Your task to perform on an android device: Open calendar and show me the second week of next month Image 0: 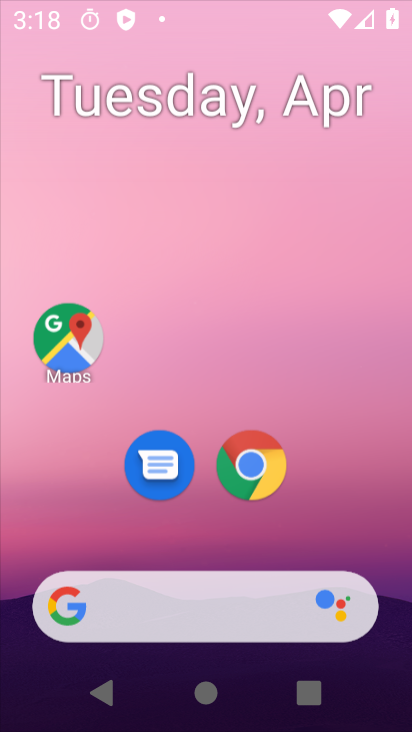
Step 0: drag from (215, 546) to (175, 3)
Your task to perform on an android device: Open calendar and show me the second week of next month Image 1: 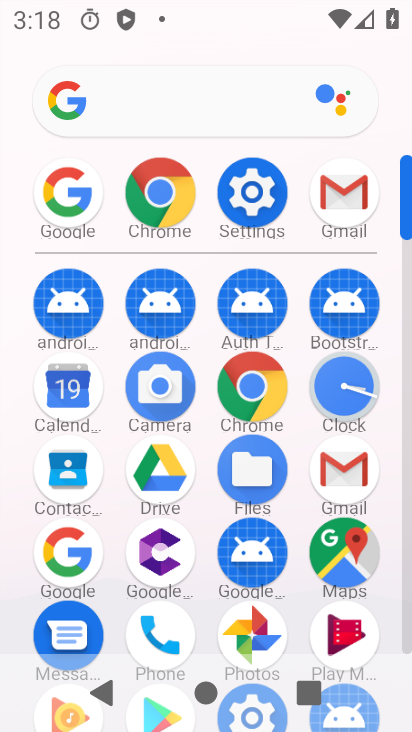
Step 1: click (71, 372)
Your task to perform on an android device: Open calendar and show me the second week of next month Image 2: 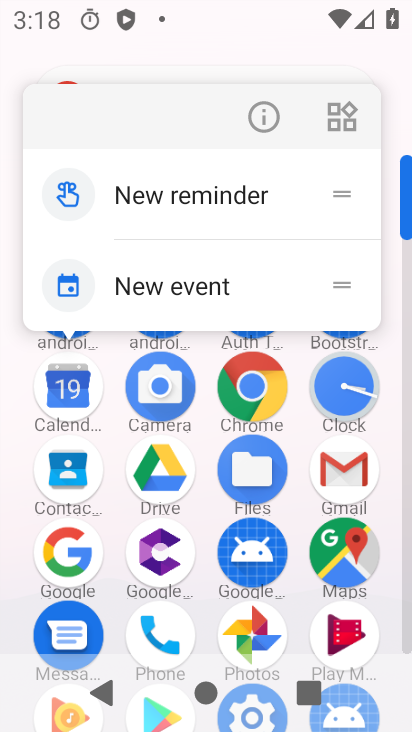
Step 2: click (68, 409)
Your task to perform on an android device: Open calendar and show me the second week of next month Image 3: 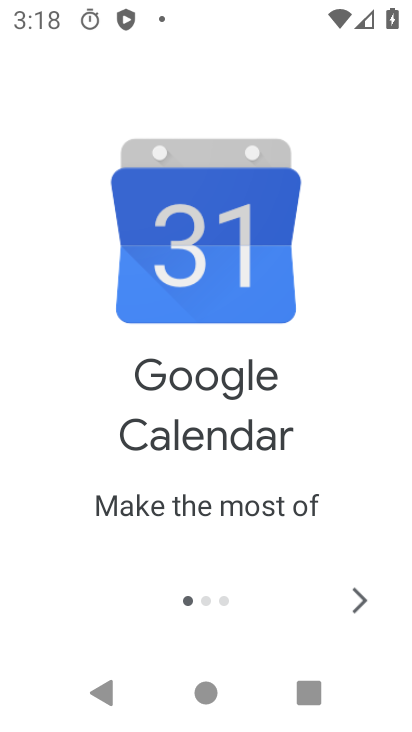
Step 3: click (351, 593)
Your task to perform on an android device: Open calendar and show me the second week of next month Image 4: 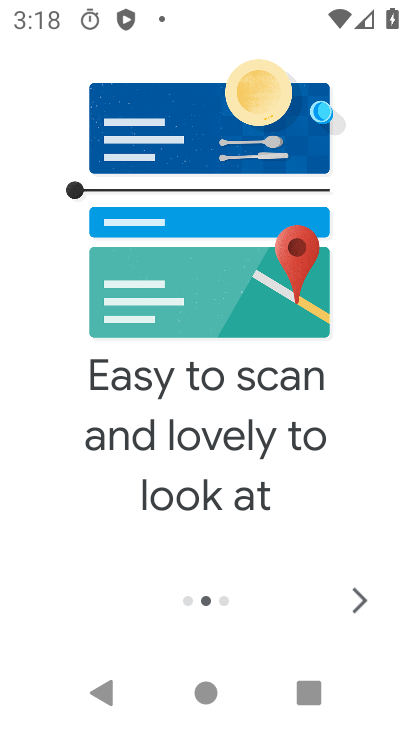
Step 4: click (351, 593)
Your task to perform on an android device: Open calendar and show me the second week of next month Image 5: 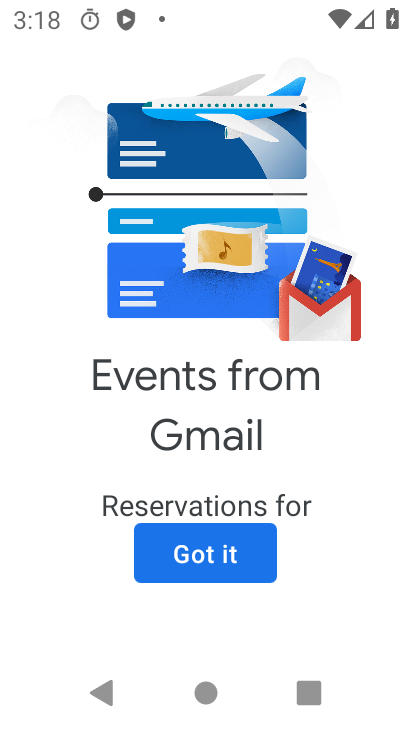
Step 5: click (240, 566)
Your task to perform on an android device: Open calendar and show me the second week of next month Image 6: 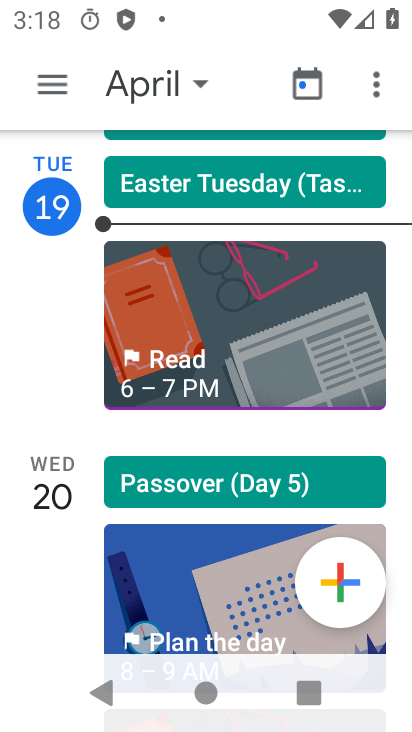
Step 6: click (35, 73)
Your task to perform on an android device: Open calendar and show me the second week of next month Image 7: 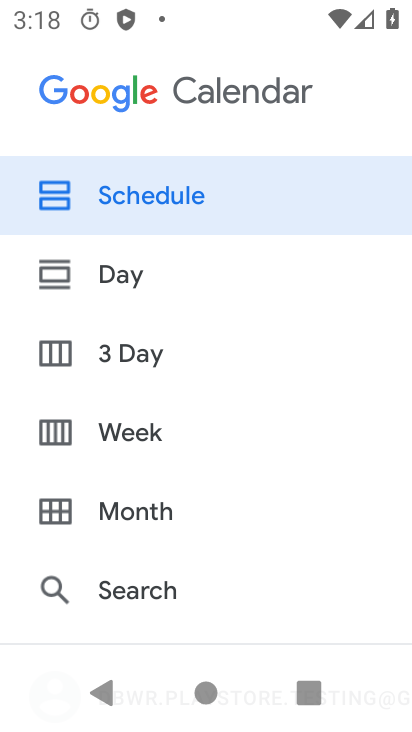
Step 7: click (184, 450)
Your task to perform on an android device: Open calendar and show me the second week of next month Image 8: 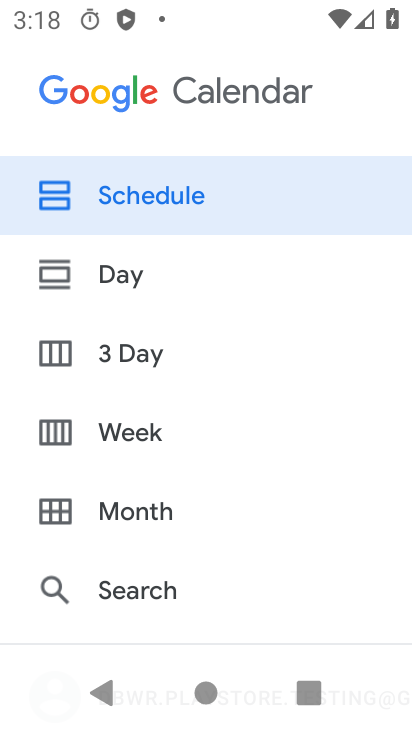
Step 8: click (195, 438)
Your task to perform on an android device: Open calendar and show me the second week of next month Image 9: 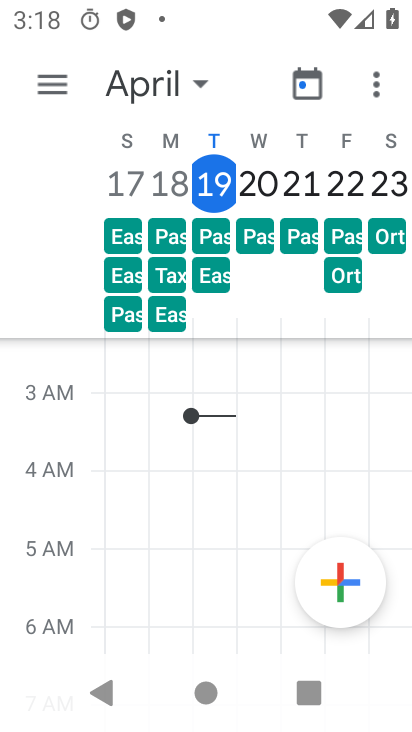
Step 9: task complete